Your task to perform on an android device: find snoozed emails in the gmail app Image 0: 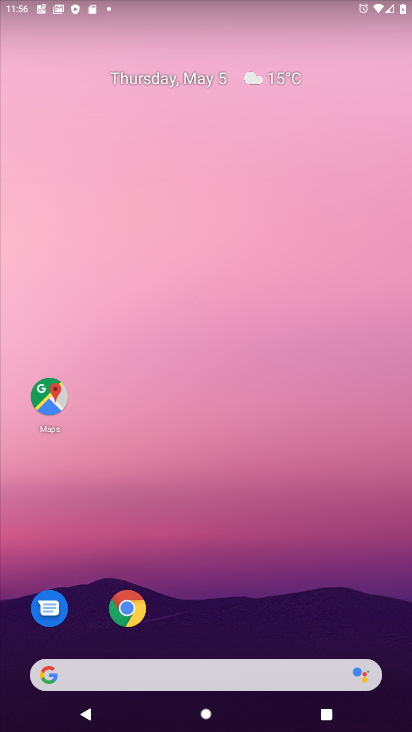
Step 0: drag from (271, 604) to (313, 190)
Your task to perform on an android device: find snoozed emails in the gmail app Image 1: 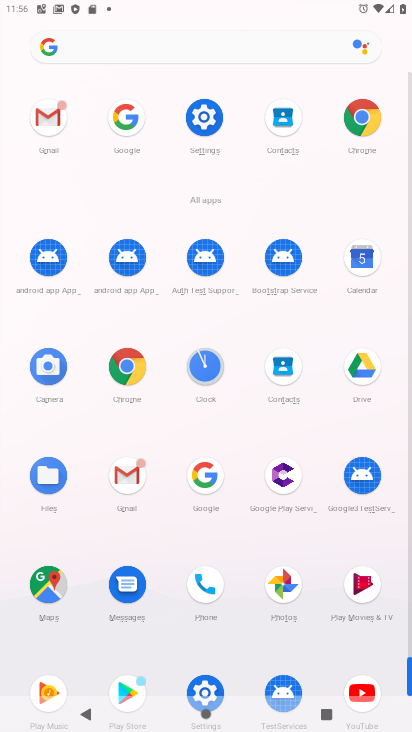
Step 1: click (56, 120)
Your task to perform on an android device: find snoozed emails in the gmail app Image 2: 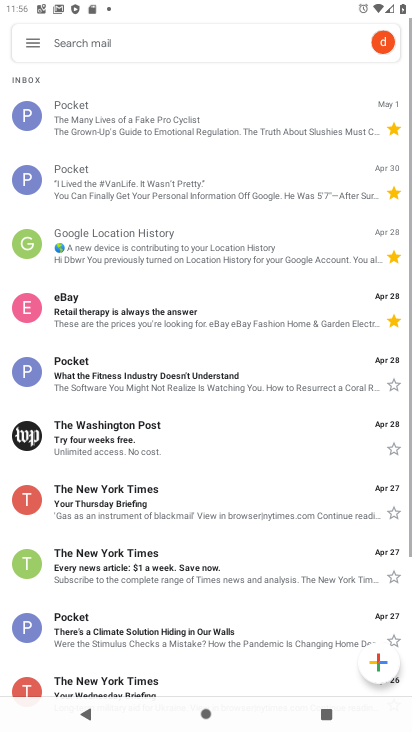
Step 2: click (32, 46)
Your task to perform on an android device: find snoozed emails in the gmail app Image 3: 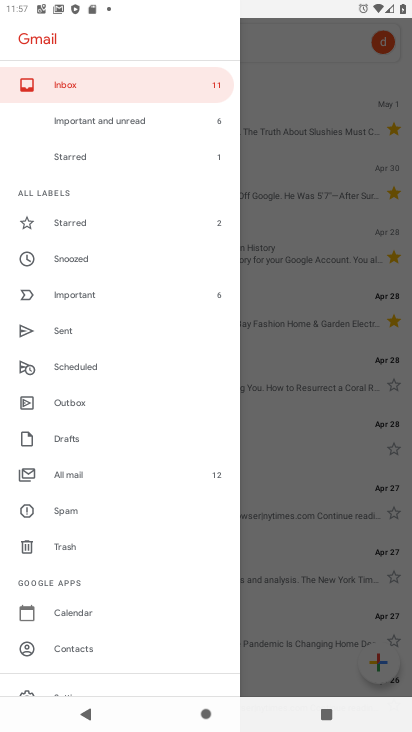
Step 3: click (85, 262)
Your task to perform on an android device: find snoozed emails in the gmail app Image 4: 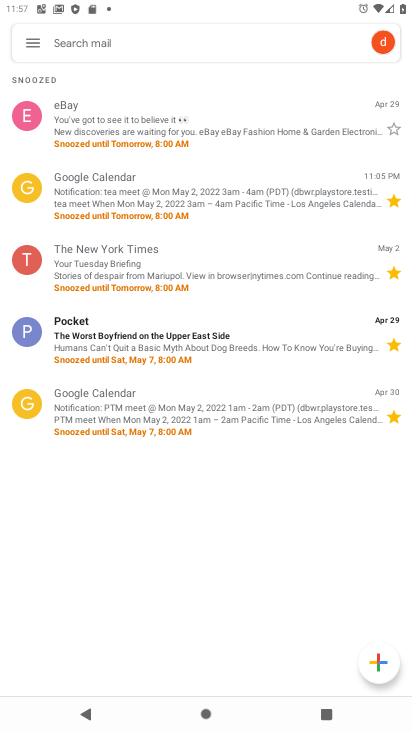
Step 4: task complete